Your task to perform on an android device: Go to CNN.com Image 0: 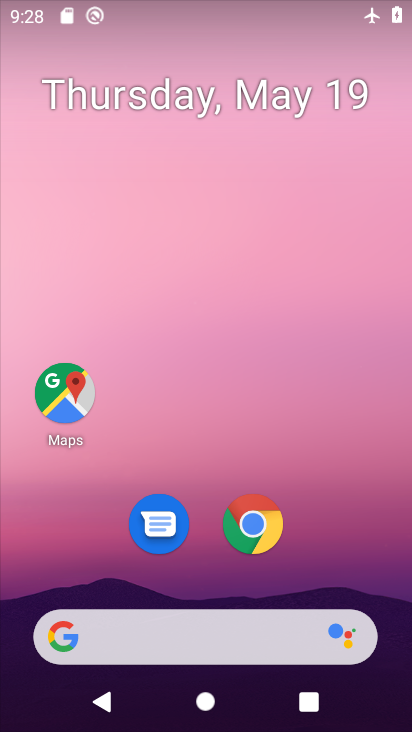
Step 0: click (259, 634)
Your task to perform on an android device: Go to CNN.com Image 1: 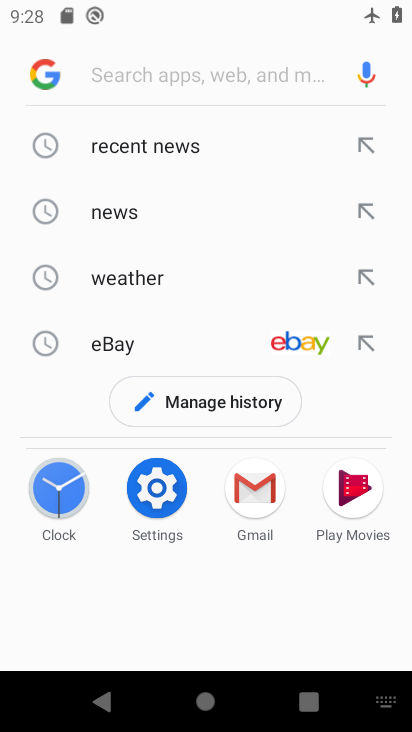
Step 1: type "cnn.com"
Your task to perform on an android device: Go to CNN.com Image 2: 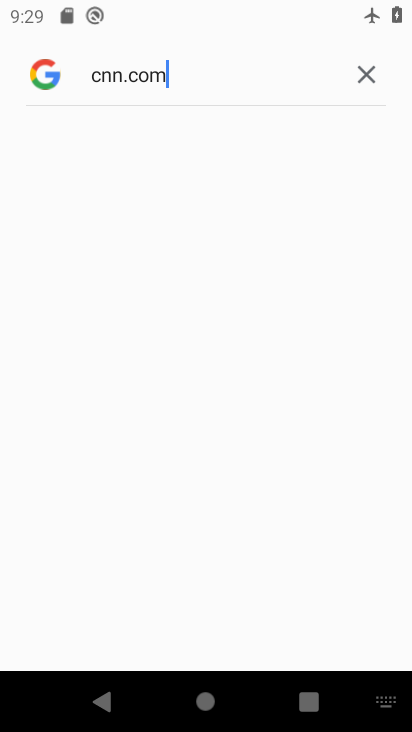
Step 2: task complete